Your task to perform on an android device: turn on the 24-hour format for clock Image 0: 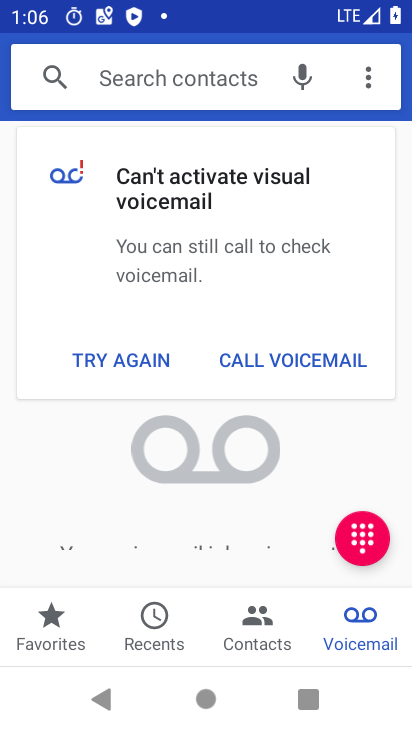
Step 0: press home button
Your task to perform on an android device: turn on the 24-hour format for clock Image 1: 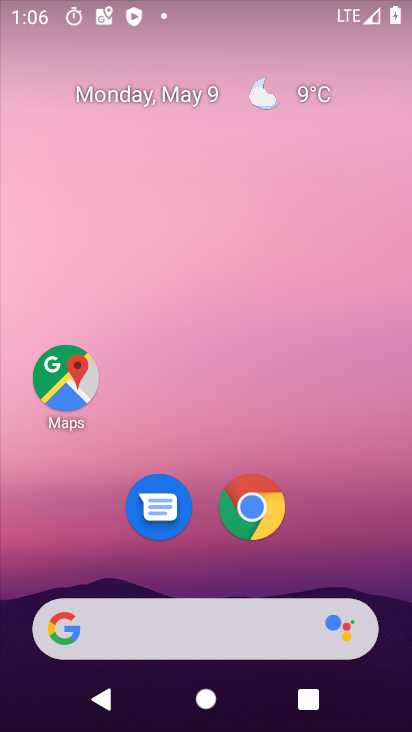
Step 1: drag from (234, 723) to (217, 114)
Your task to perform on an android device: turn on the 24-hour format for clock Image 2: 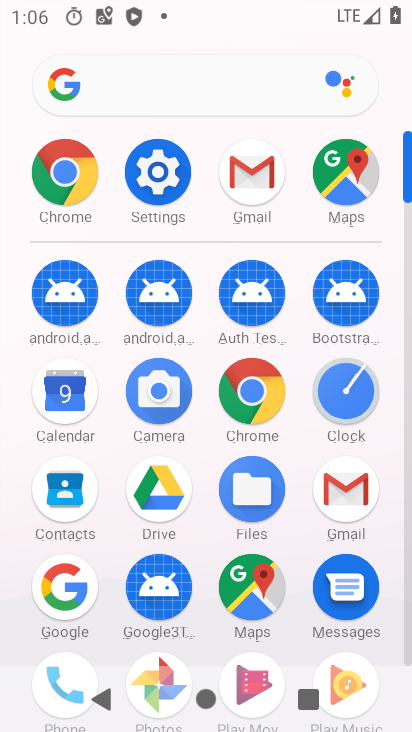
Step 2: click (345, 393)
Your task to perform on an android device: turn on the 24-hour format for clock Image 3: 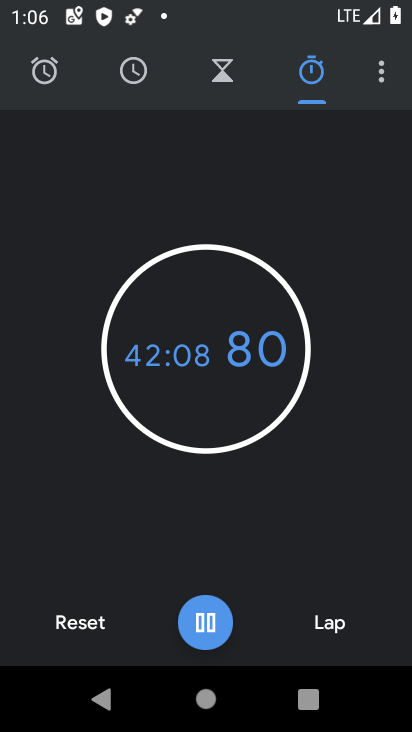
Step 3: click (382, 81)
Your task to perform on an android device: turn on the 24-hour format for clock Image 4: 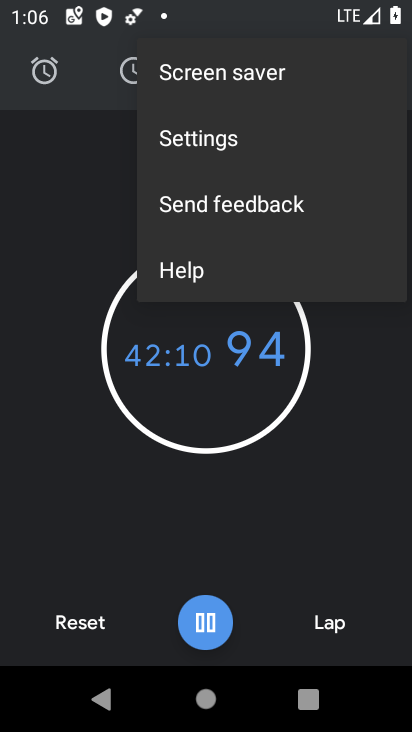
Step 4: click (188, 131)
Your task to perform on an android device: turn on the 24-hour format for clock Image 5: 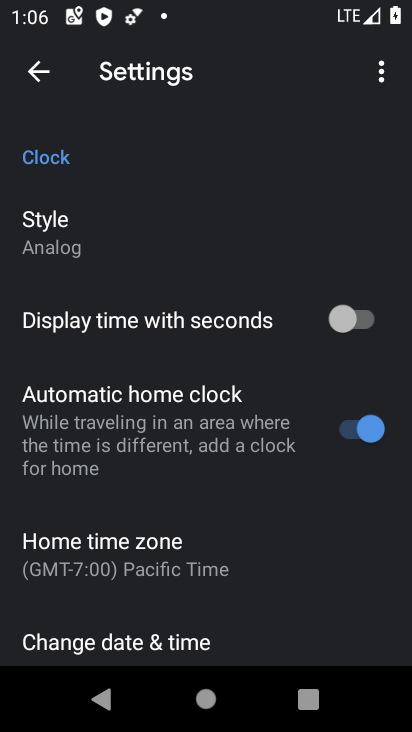
Step 5: drag from (224, 632) to (227, 373)
Your task to perform on an android device: turn on the 24-hour format for clock Image 6: 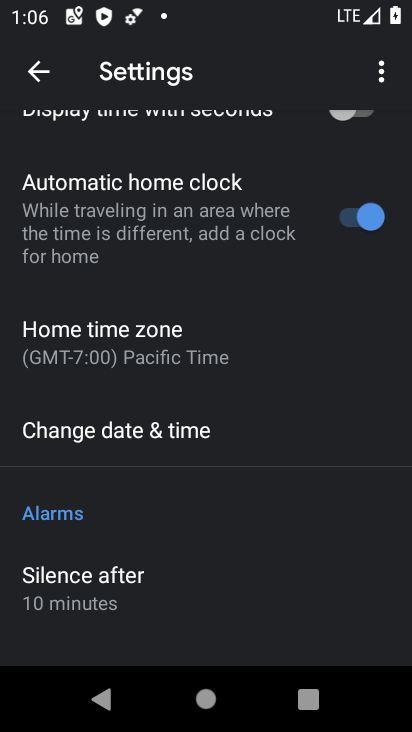
Step 6: drag from (213, 610) to (212, 462)
Your task to perform on an android device: turn on the 24-hour format for clock Image 7: 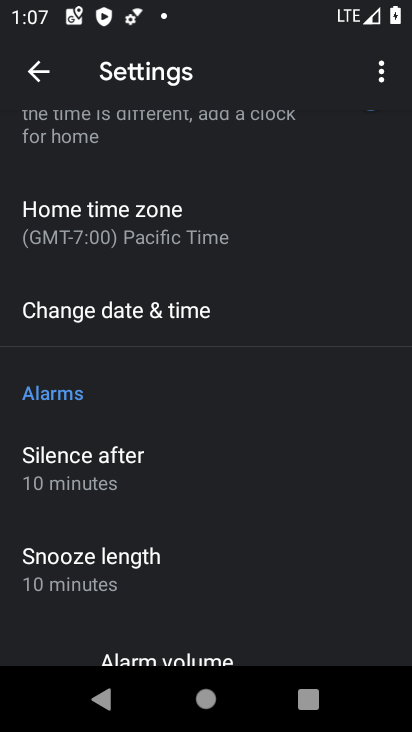
Step 7: click (158, 313)
Your task to perform on an android device: turn on the 24-hour format for clock Image 8: 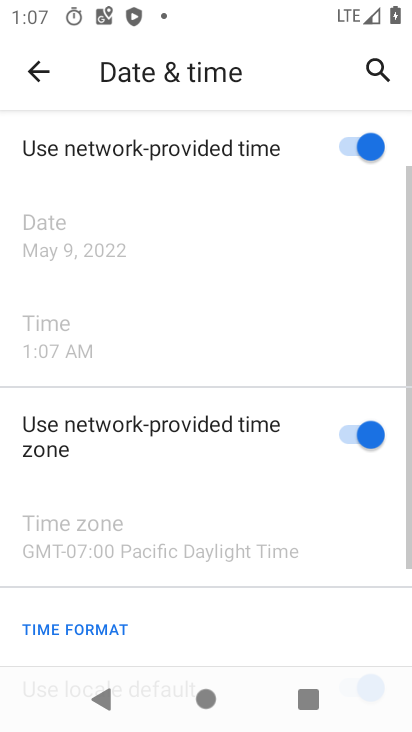
Step 8: drag from (203, 627) to (201, 282)
Your task to perform on an android device: turn on the 24-hour format for clock Image 9: 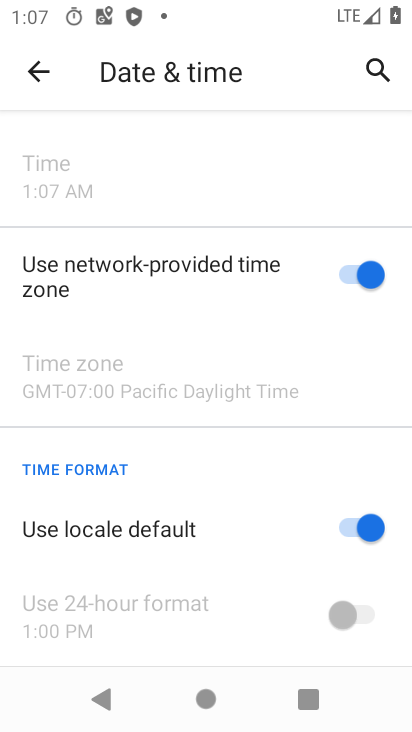
Step 9: click (353, 527)
Your task to perform on an android device: turn on the 24-hour format for clock Image 10: 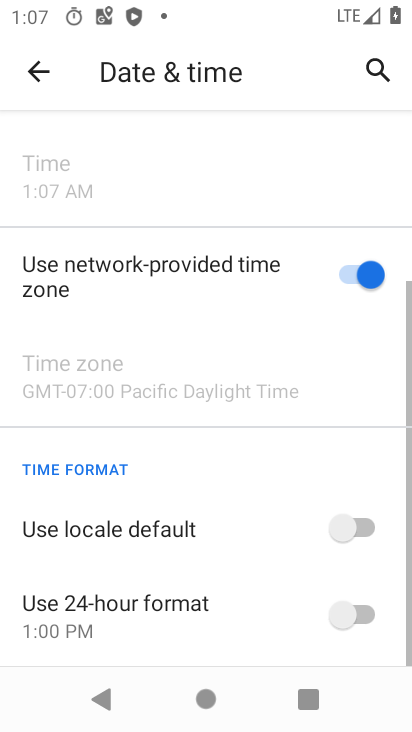
Step 10: click (361, 606)
Your task to perform on an android device: turn on the 24-hour format for clock Image 11: 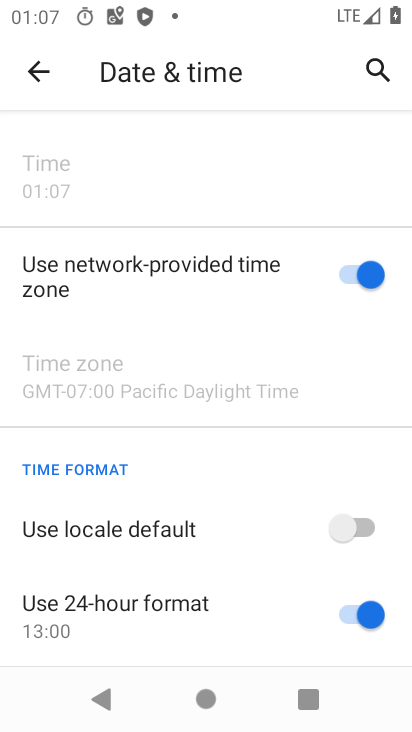
Step 11: task complete